Your task to perform on an android device: clear all cookies in the chrome app Image 0: 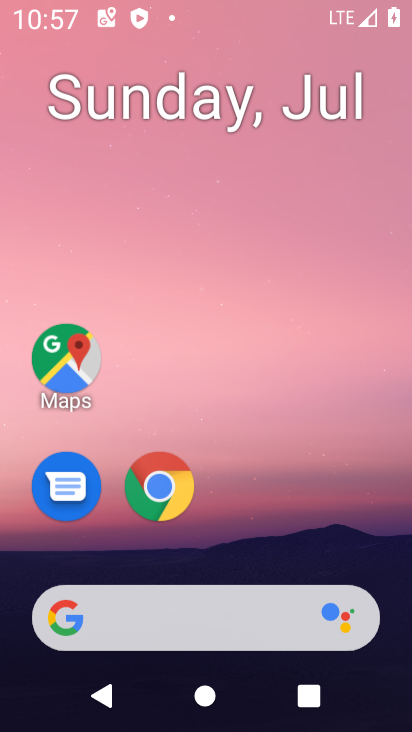
Step 0: press home button
Your task to perform on an android device: clear all cookies in the chrome app Image 1: 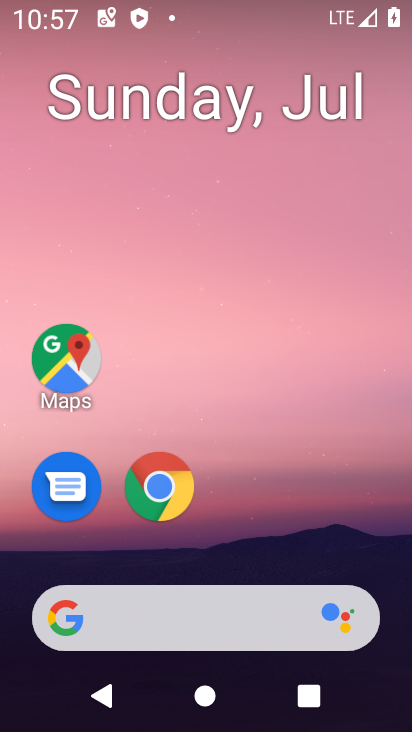
Step 1: drag from (375, 539) to (408, 357)
Your task to perform on an android device: clear all cookies in the chrome app Image 2: 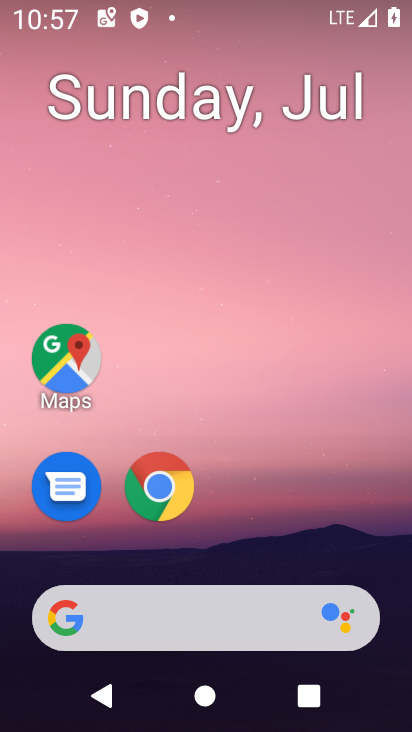
Step 2: drag from (360, 519) to (357, 96)
Your task to perform on an android device: clear all cookies in the chrome app Image 3: 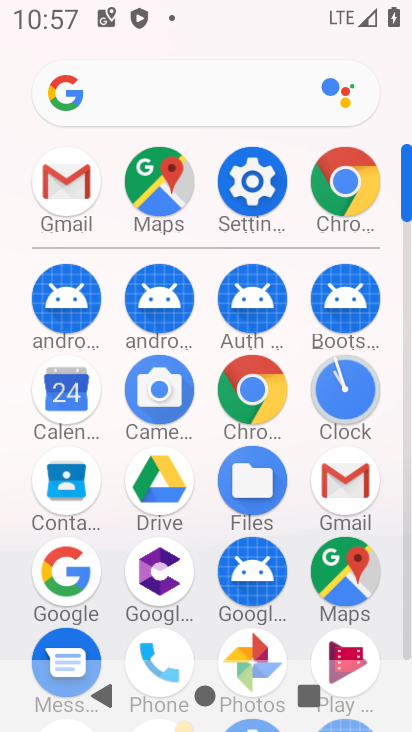
Step 3: click (250, 395)
Your task to perform on an android device: clear all cookies in the chrome app Image 4: 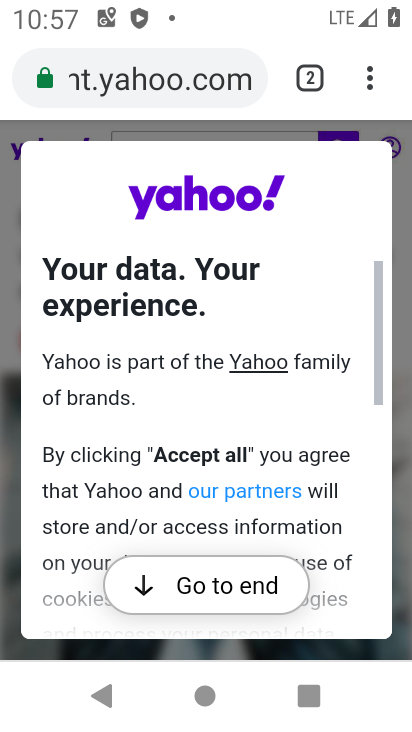
Step 4: click (369, 87)
Your task to perform on an android device: clear all cookies in the chrome app Image 5: 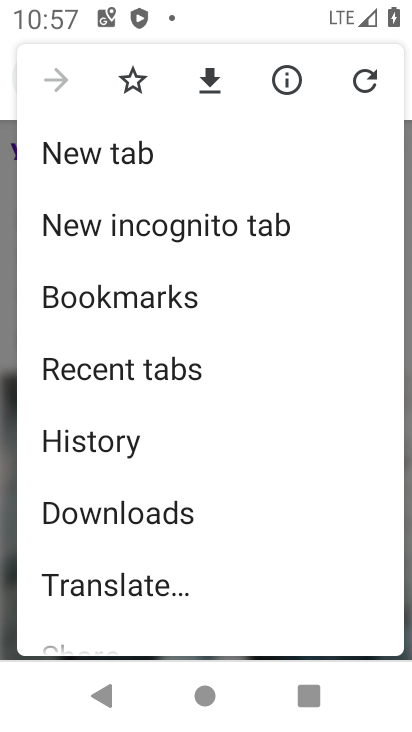
Step 5: drag from (321, 444) to (318, 245)
Your task to perform on an android device: clear all cookies in the chrome app Image 6: 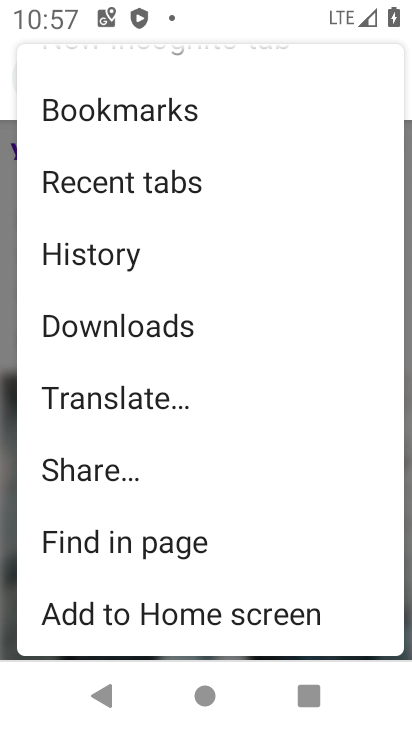
Step 6: drag from (285, 441) to (284, 236)
Your task to perform on an android device: clear all cookies in the chrome app Image 7: 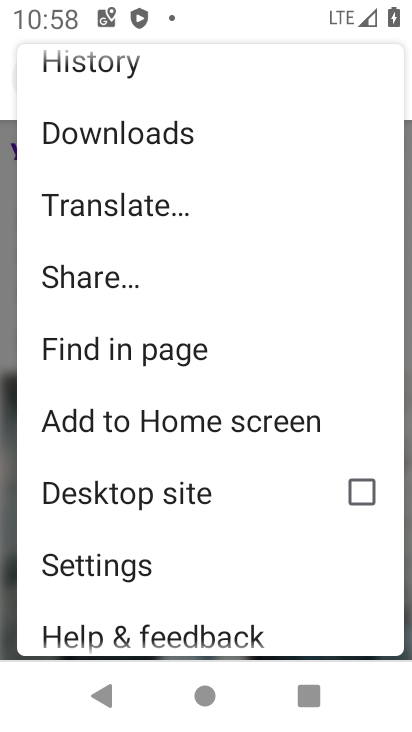
Step 7: drag from (279, 371) to (277, 236)
Your task to perform on an android device: clear all cookies in the chrome app Image 8: 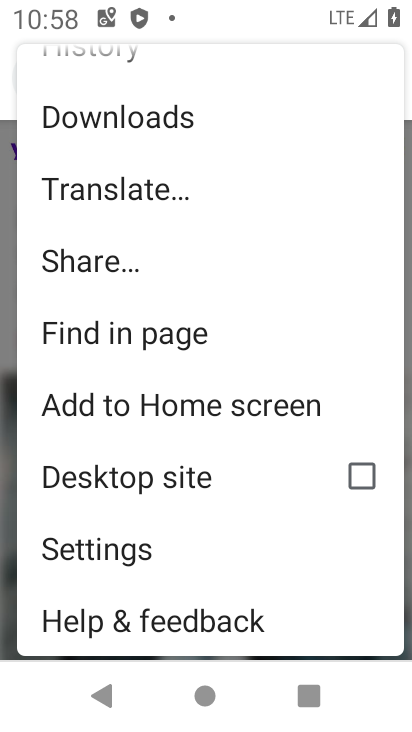
Step 8: click (148, 553)
Your task to perform on an android device: clear all cookies in the chrome app Image 9: 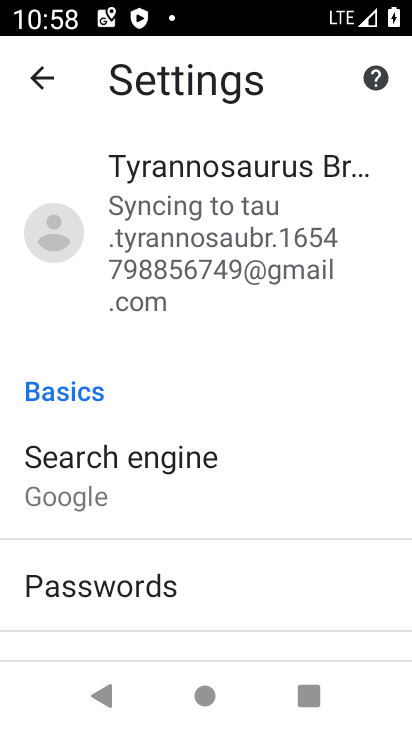
Step 9: drag from (291, 551) to (291, 396)
Your task to perform on an android device: clear all cookies in the chrome app Image 10: 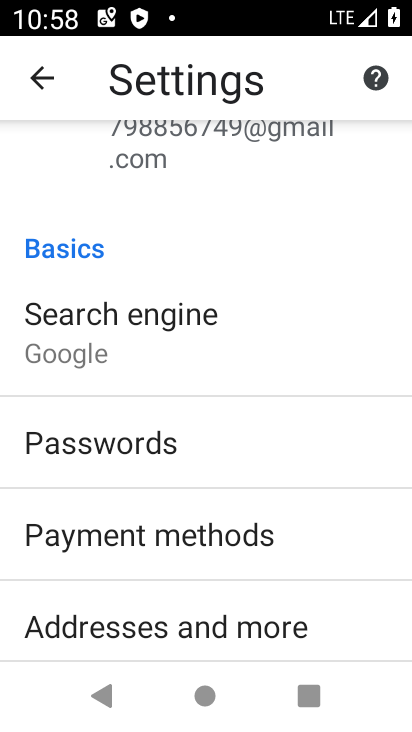
Step 10: drag from (291, 501) to (291, 324)
Your task to perform on an android device: clear all cookies in the chrome app Image 11: 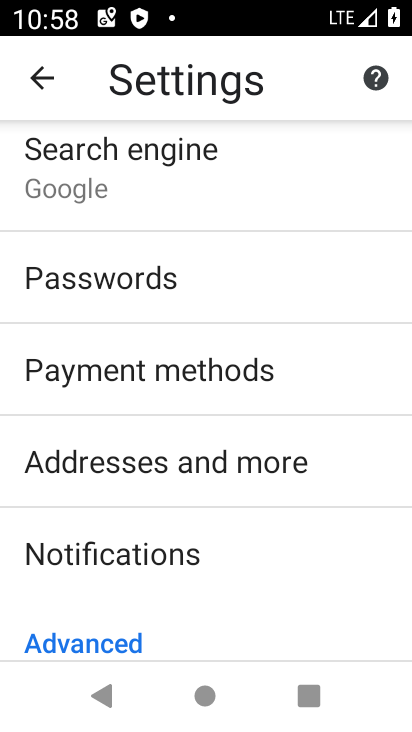
Step 11: drag from (293, 560) to (297, 348)
Your task to perform on an android device: clear all cookies in the chrome app Image 12: 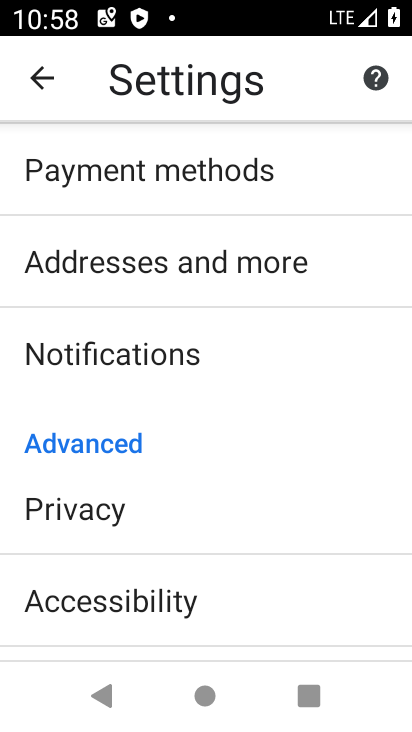
Step 12: drag from (324, 560) to (312, 395)
Your task to perform on an android device: clear all cookies in the chrome app Image 13: 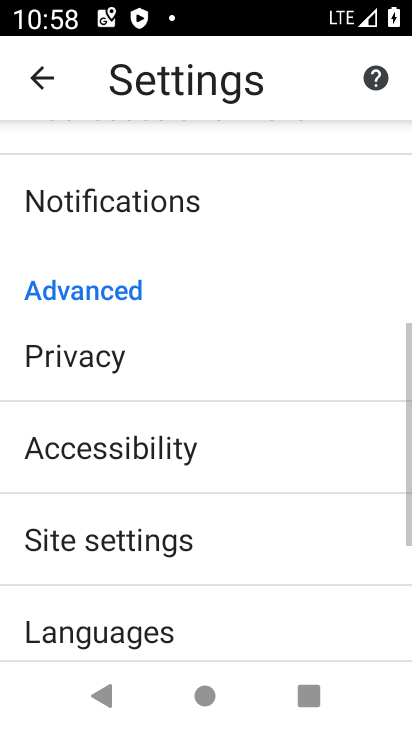
Step 13: drag from (299, 533) to (304, 385)
Your task to perform on an android device: clear all cookies in the chrome app Image 14: 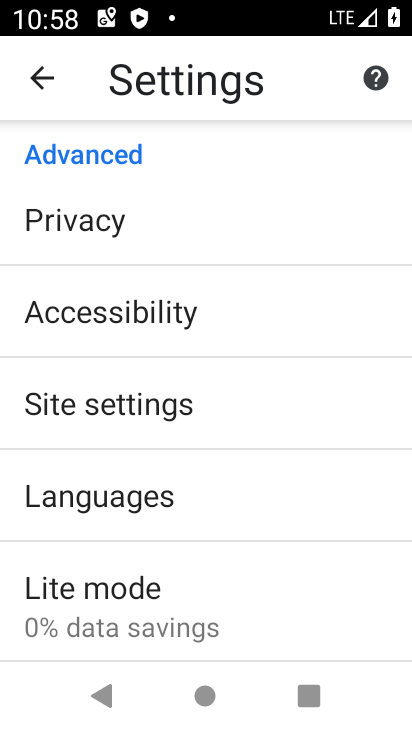
Step 14: drag from (276, 498) to (278, 325)
Your task to perform on an android device: clear all cookies in the chrome app Image 15: 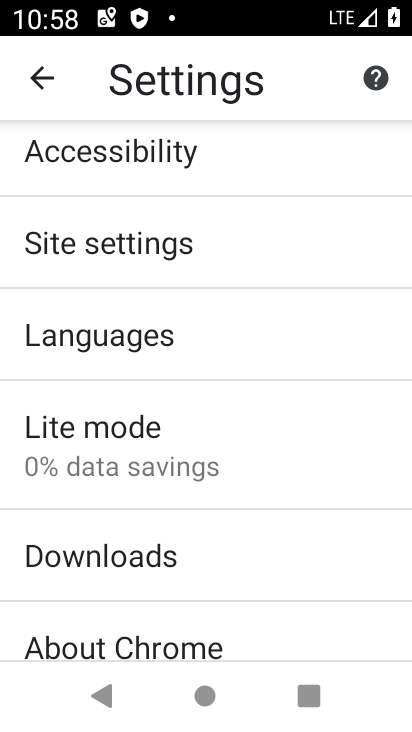
Step 15: drag from (294, 258) to (287, 504)
Your task to perform on an android device: clear all cookies in the chrome app Image 16: 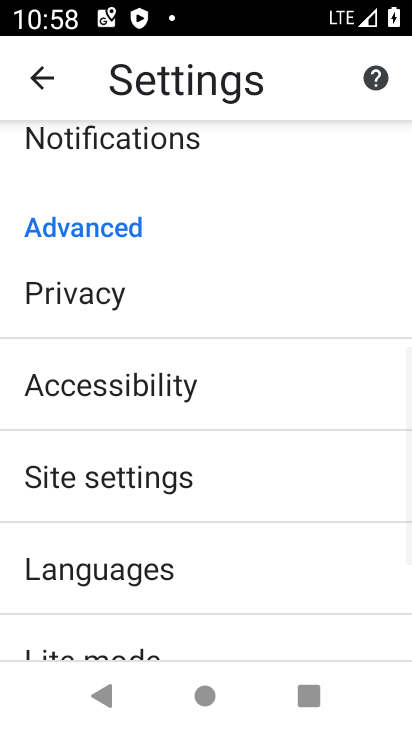
Step 16: click (232, 285)
Your task to perform on an android device: clear all cookies in the chrome app Image 17: 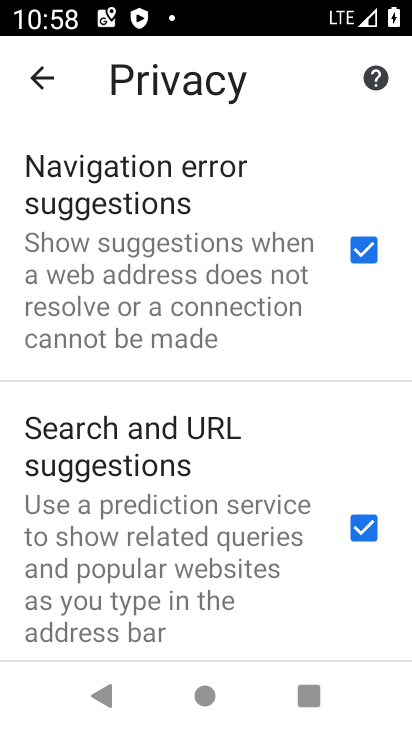
Step 17: drag from (254, 509) to (255, 304)
Your task to perform on an android device: clear all cookies in the chrome app Image 18: 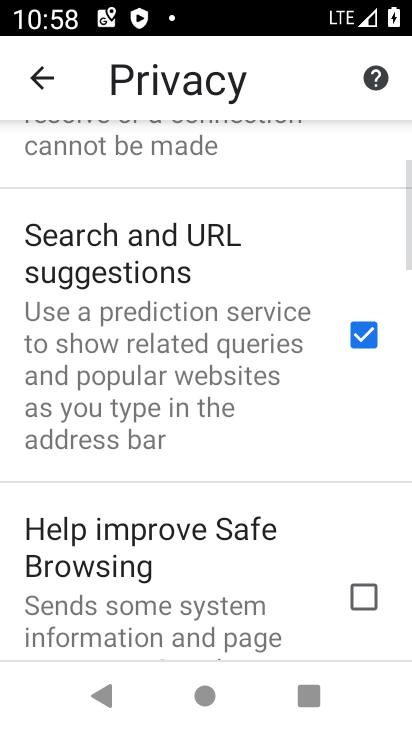
Step 18: drag from (257, 490) to (259, 344)
Your task to perform on an android device: clear all cookies in the chrome app Image 19: 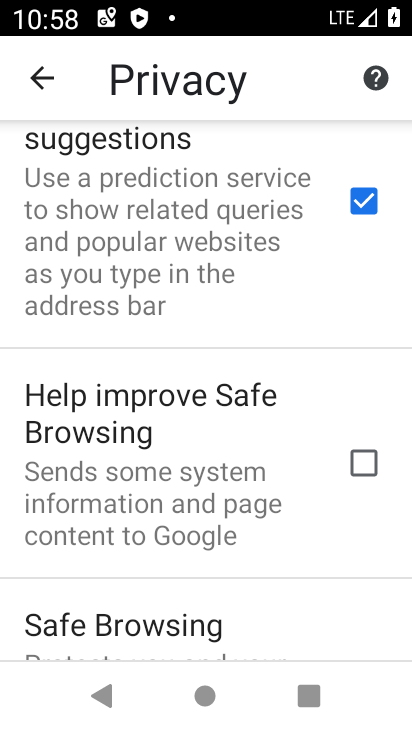
Step 19: drag from (241, 506) to (240, 390)
Your task to perform on an android device: clear all cookies in the chrome app Image 20: 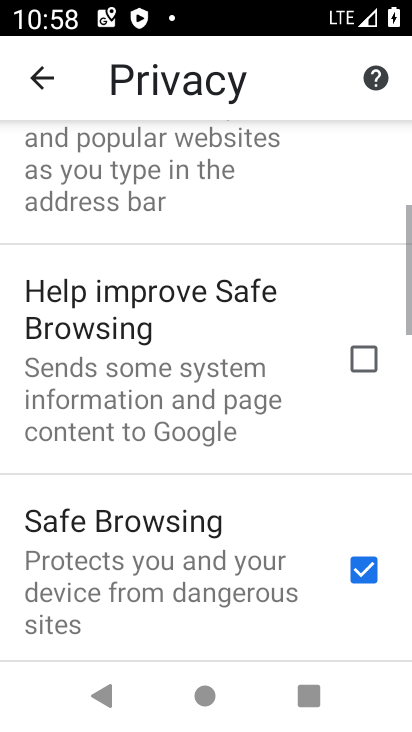
Step 20: drag from (240, 527) to (236, 331)
Your task to perform on an android device: clear all cookies in the chrome app Image 21: 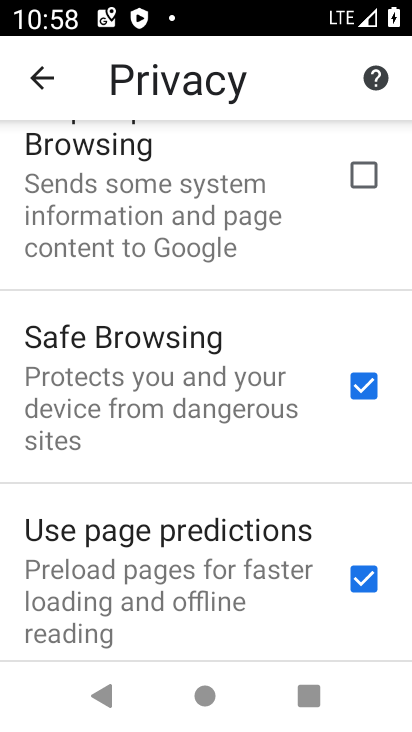
Step 21: drag from (222, 568) to (223, 383)
Your task to perform on an android device: clear all cookies in the chrome app Image 22: 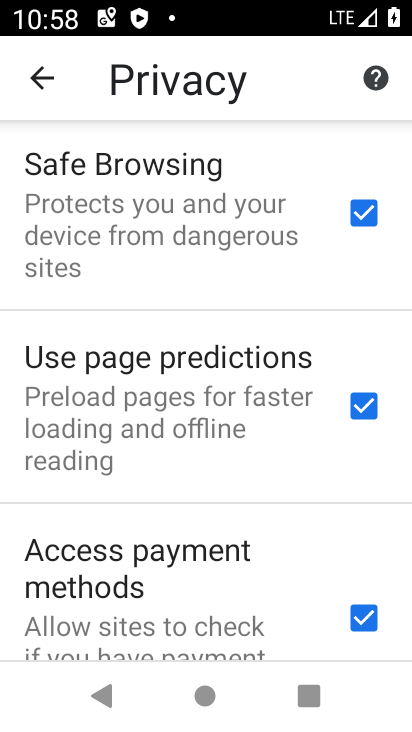
Step 22: drag from (264, 549) to (262, 290)
Your task to perform on an android device: clear all cookies in the chrome app Image 23: 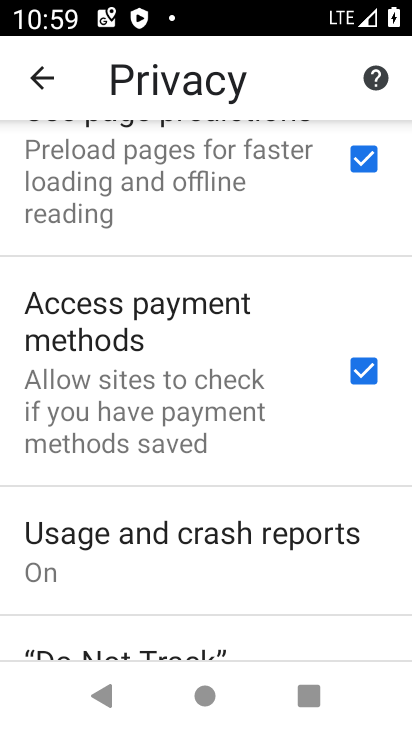
Step 23: drag from (260, 531) to (255, 293)
Your task to perform on an android device: clear all cookies in the chrome app Image 24: 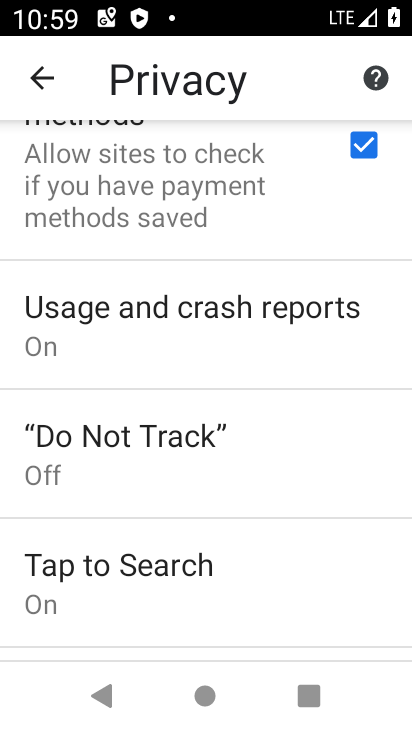
Step 24: drag from (275, 543) to (264, 335)
Your task to perform on an android device: clear all cookies in the chrome app Image 25: 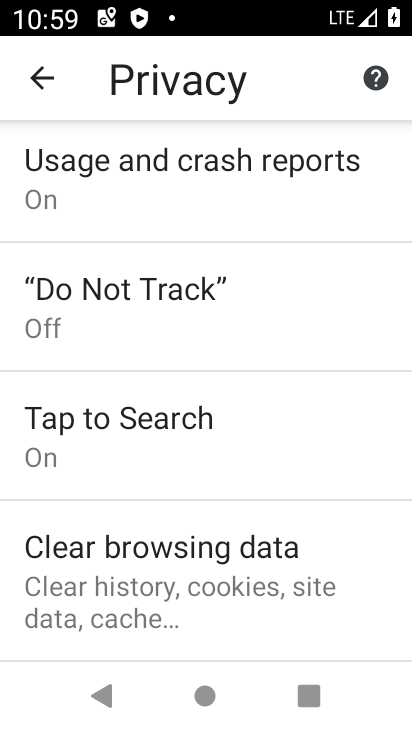
Step 25: drag from (262, 537) to (259, 338)
Your task to perform on an android device: clear all cookies in the chrome app Image 26: 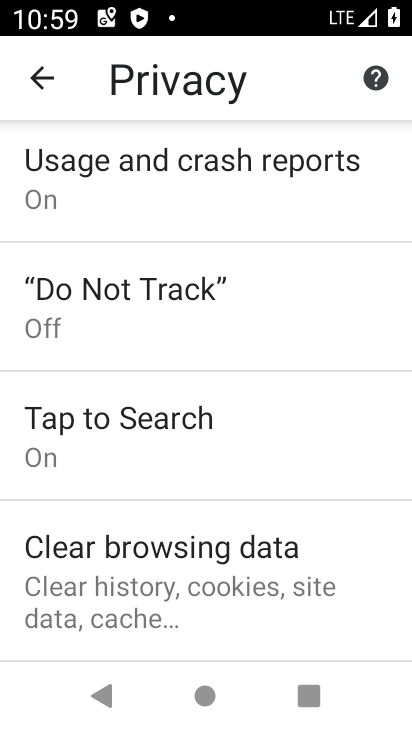
Step 26: click (271, 563)
Your task to perform on an android device: clear all cookies in the chrome app Image 27: 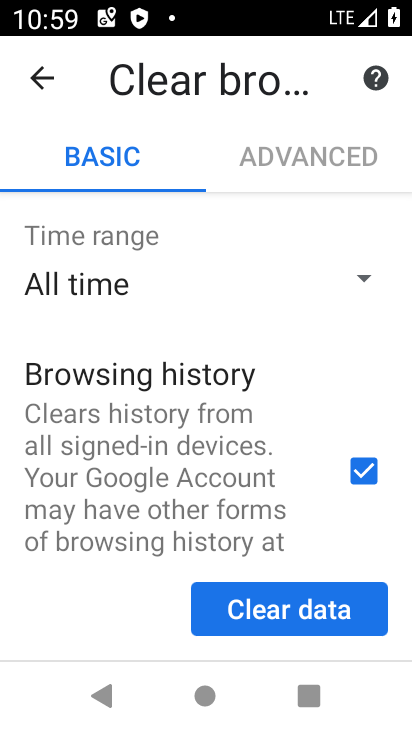
Step 27: click (315, 604)
Your task to perform on an android device: clear all cookies in the chrome app Image 28: 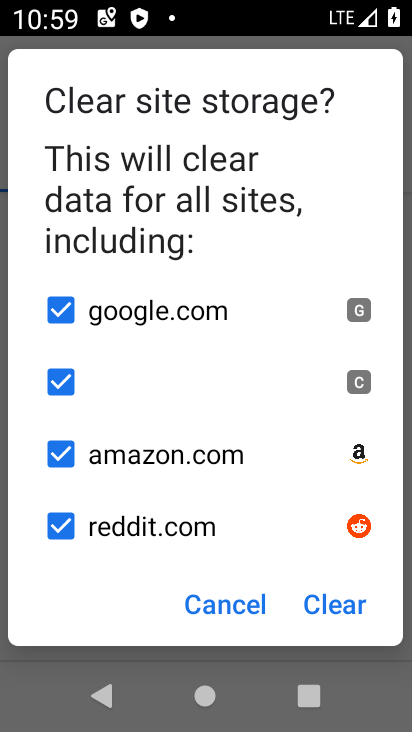
Step 28: drag from (317, 593) to (332, 317)
Your task to perform on an android device: clear all cookies in the chrome app Image 29: 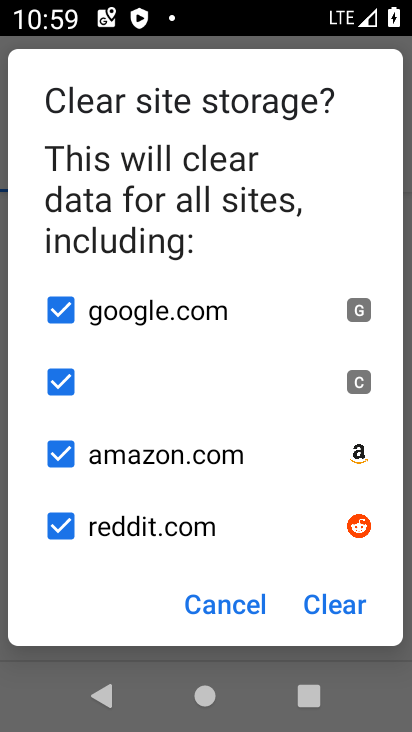
Step 29: click (359, 610)
Your task to perform on an android device: clear all cookies in the chrome app Image 30: 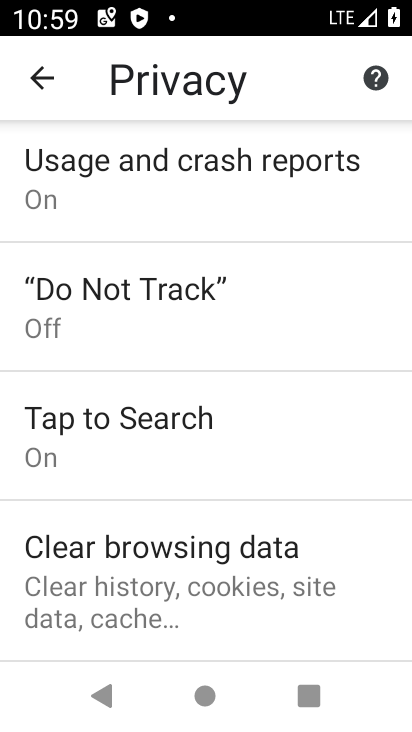
Step 30: drag from (321, 598) to (319, 245)
Your task to perform on an android device: clear all cookies in the chrome app Image 31: 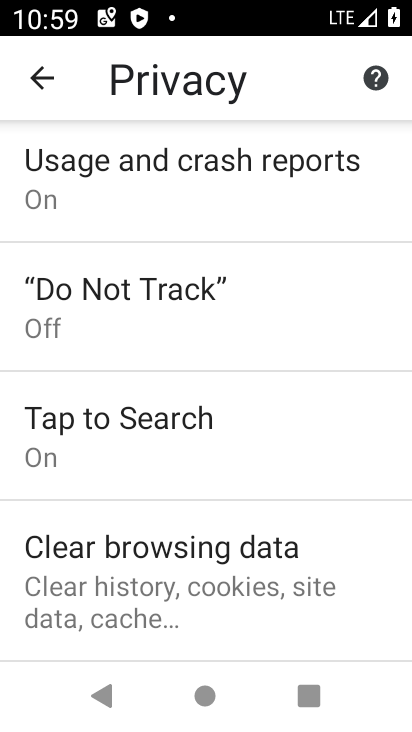
Step 31: drag from (348, 495) to (345, 260)
Your task to perform on an android device: clear all cookies in the chrome app Image 32: 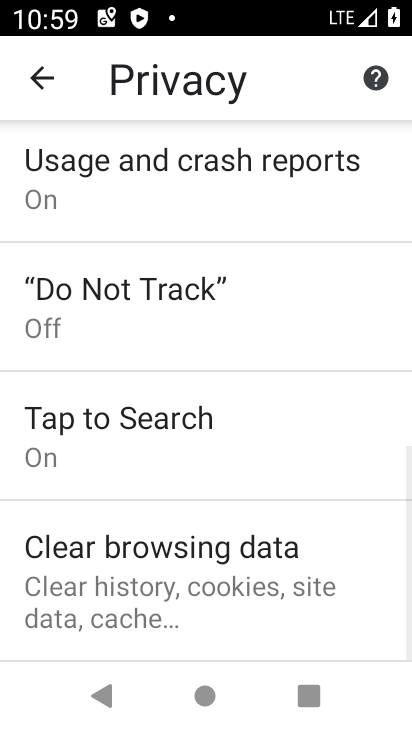
Step 32: drag from (345, 537) to (347, 322)
Your task to perform on an android device: clear all cookies in the chrome app Image 33: 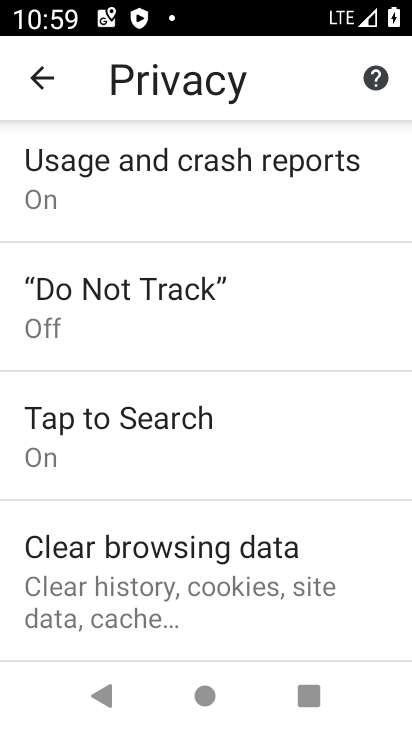
Step 33: click (276, 580)
Your task to perform on an android device: clear all cookies in the chrome app Image 34: 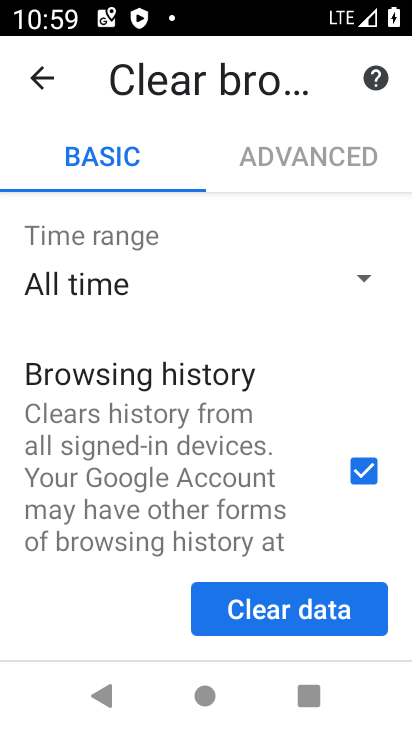
Step 34: drag from (266, 631) to (278, 517)
Your task to perform on an android device: clear all cookies in the chrome app Image 35: 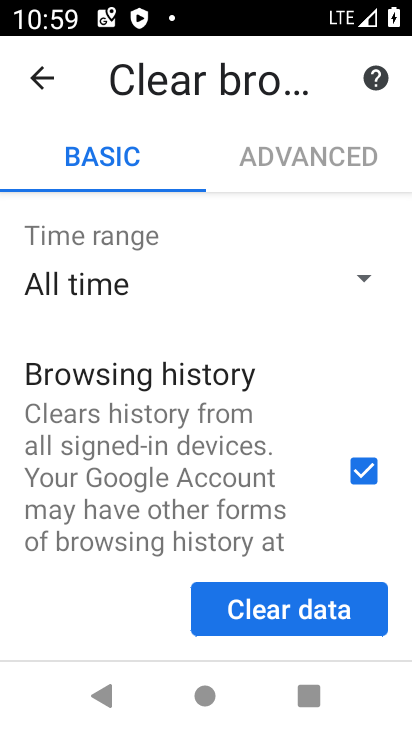
Step 35: click (289, 612)
Your task to perform on an android device: clear all cookies in the chrome app Image 36: 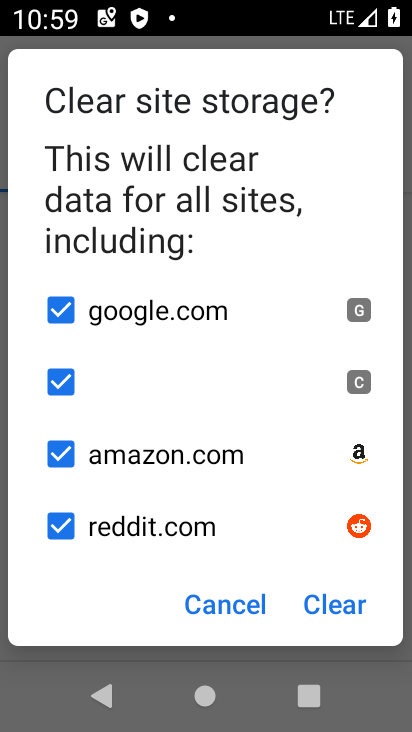
Step 36: click (334, 599)
Your task to perform on an android device: clear all cookies in the chrome app Image 37: 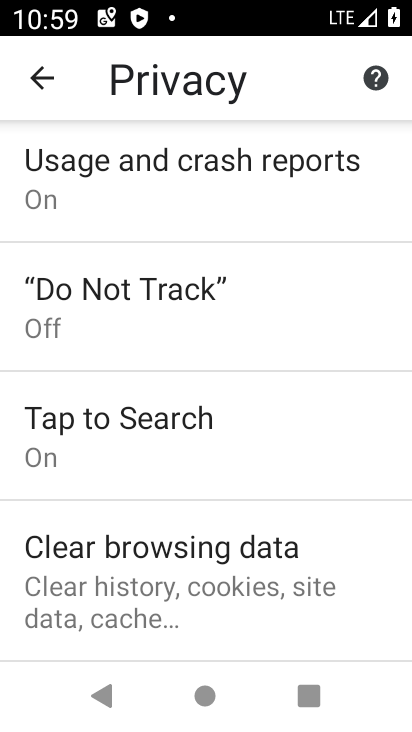
Step 37: task complete